Your task to perform on an android device: turn on javascript in the chrome app Image 0: 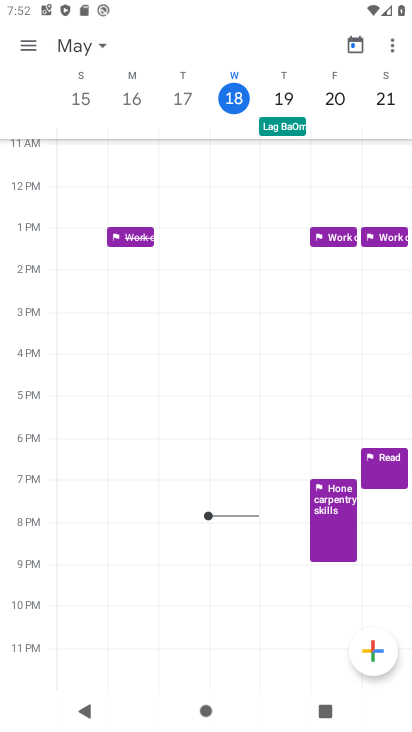
Step 0: press back button
Your task to perform on an android device: turn on javascript in the chrome app Image 1: 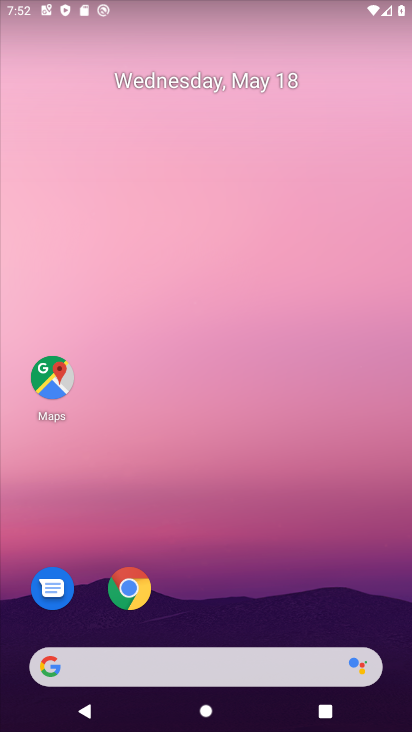
Step 1: drag from (278, 415) to (244, 24)
Your task to perform on an android device: turn on javascript in the chrome app Image 2: 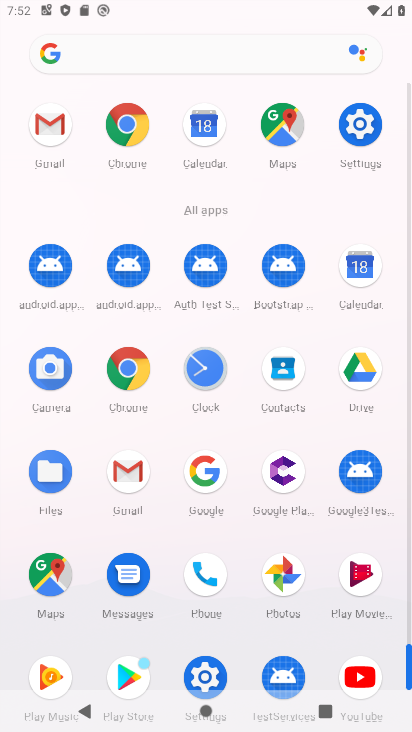
Step 2: drag from (7, 542) to (14, 219)
Your task to perform on an android device: turn on javascript in the chrome app Image 3: 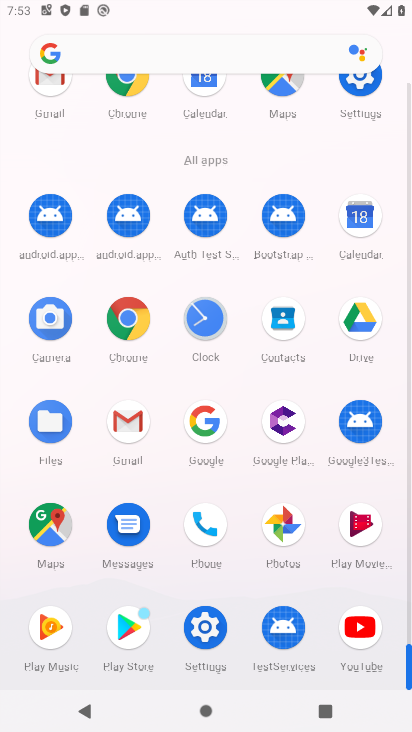
Step 3: click (126, 321)
Your task to perform on an android device: turn on javascript in the chrome app Image 4: 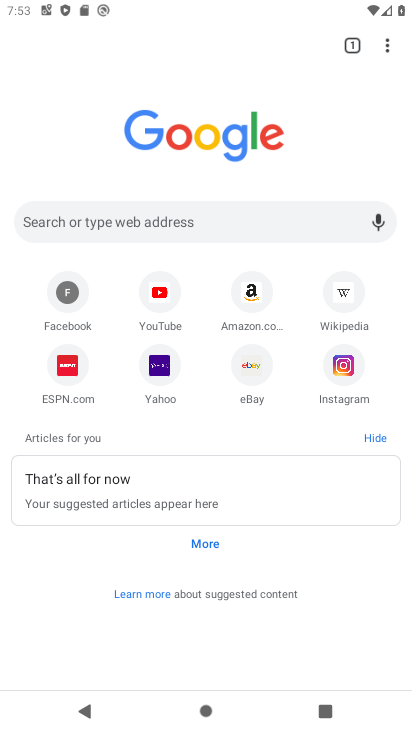
Step 4: drag from (386, 46) to (259, 379)
Your task to perform on an android device: turn on javascript in the chrome app Image 5: 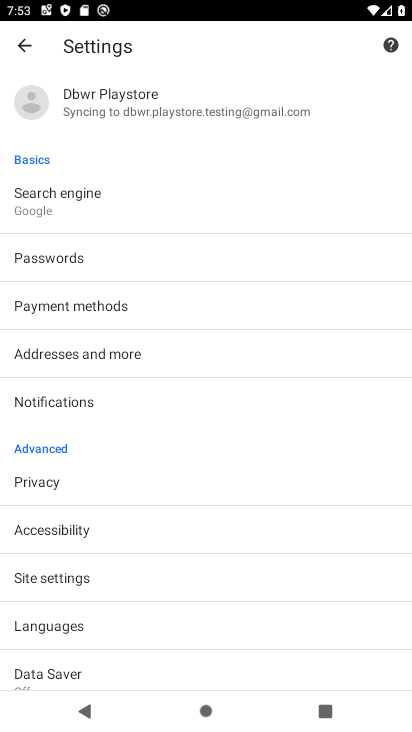
Step 5: drag from (226, 560) to (246, 179)
Your task to perform on an android device: turn on javascript in the chrome app Image 6: 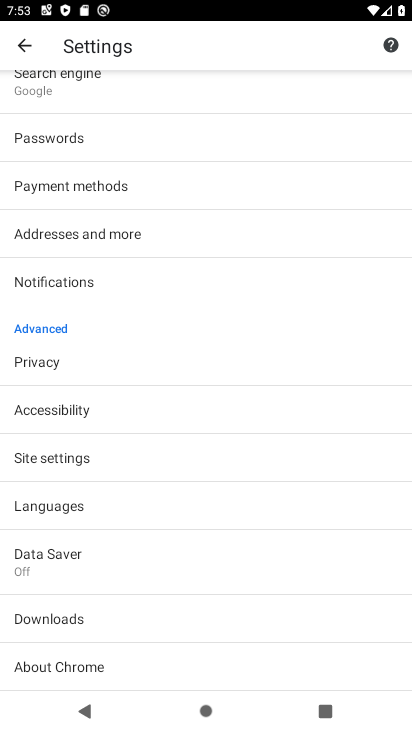
Step 6: click (65, 450)
Your task to perform on an android device: turn on javascript in the chrome app Image 7: 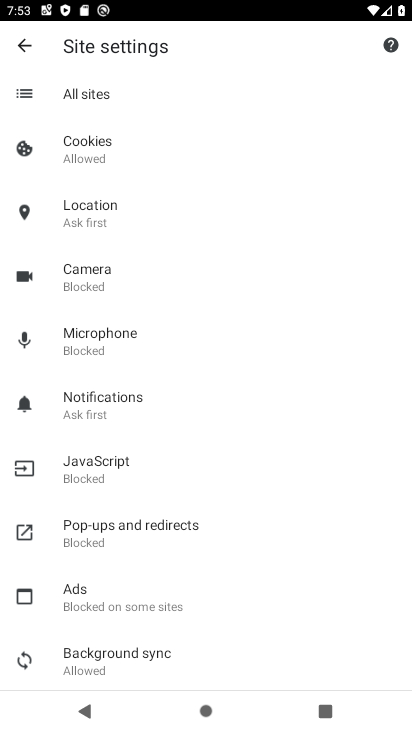
Step 7: click (111, 469)
Your task to perform on an android device: turn on javascript in the chrome app Image 8: 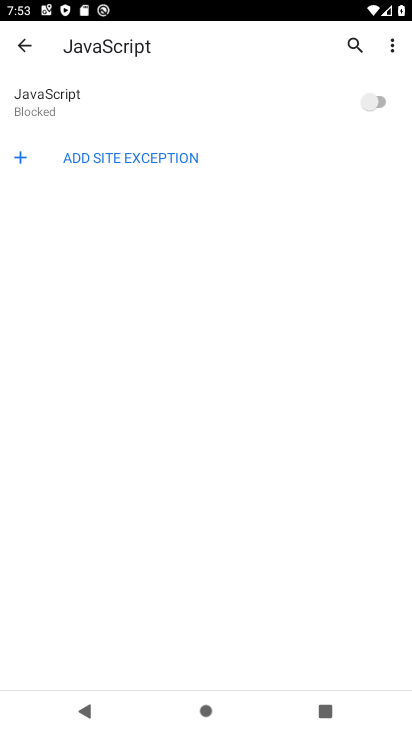
Step 8: click (364, 99)
Your task to perform on an android device: turn on javascript in the chrome app Image 9: 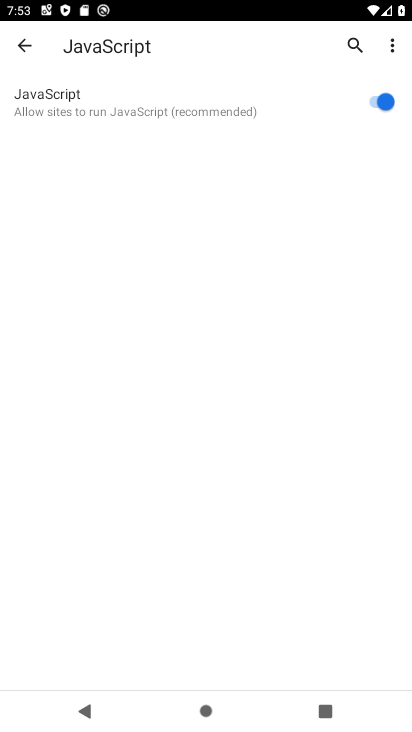
Step 9: task complete